Your task to perform on an android device: see creations saved in the google photos Image 0: 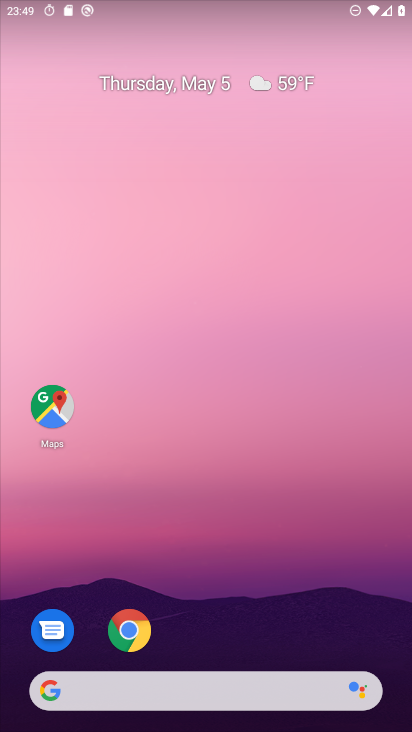
Step 0: drag from (333, 587) to (305, 120)
Your task to perform on an android device: see creations saved in the google photos Image 1: 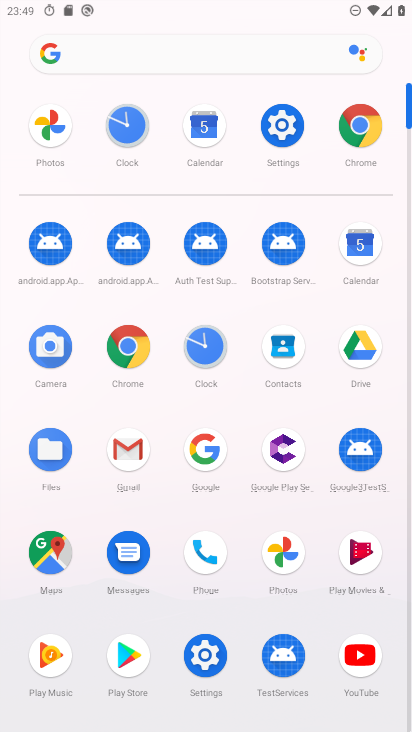
Step 1: click (275, 560)
Your task to perform on an android device: see creations saved in the google photos Image 2: 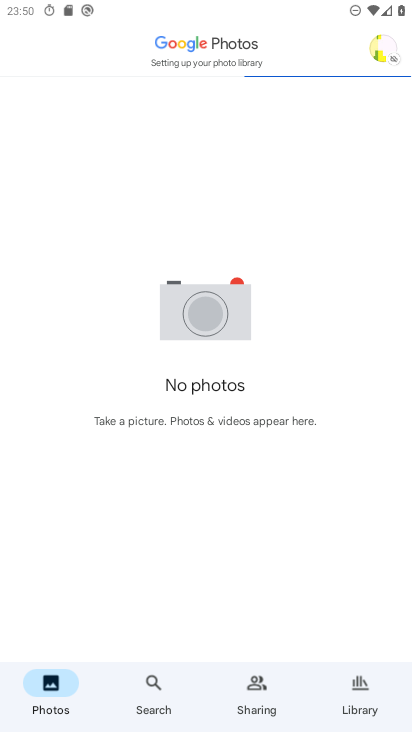
Step 2: click (257, 698)
Your task to perform on an android device: see creations saved in the google photos Image 3: 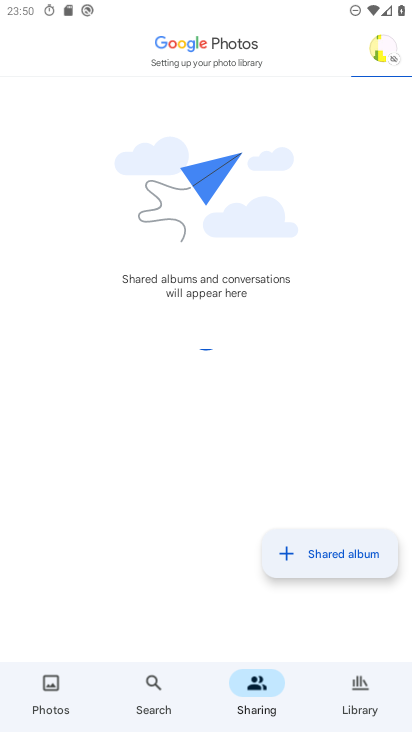
Step 3: click (396, 686)
Your task to perform on an android device: see creations saved in the google photos Image 4: 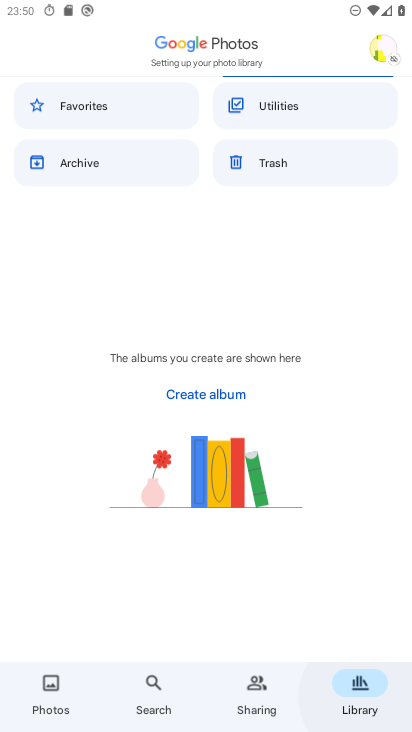
Step 4: click (370, 701)
Your task to perform on an android device: see creations saved in the google photos Image 5: 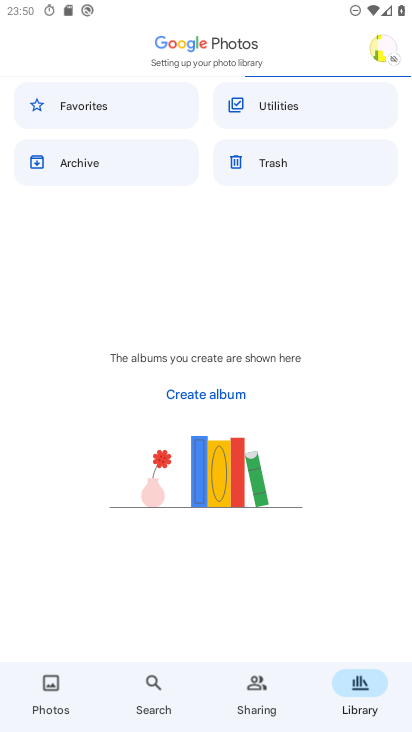
Step 5: click (173, 691)
Your task to perform on an android device: see creations saved in the google photos Image 6: 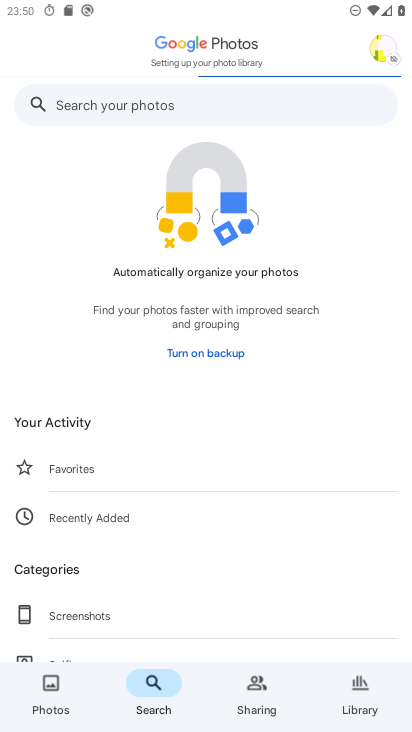
Step 6: click (60, 689)
Your task to perform on an android device: see creations saved in the google photos Image 7: 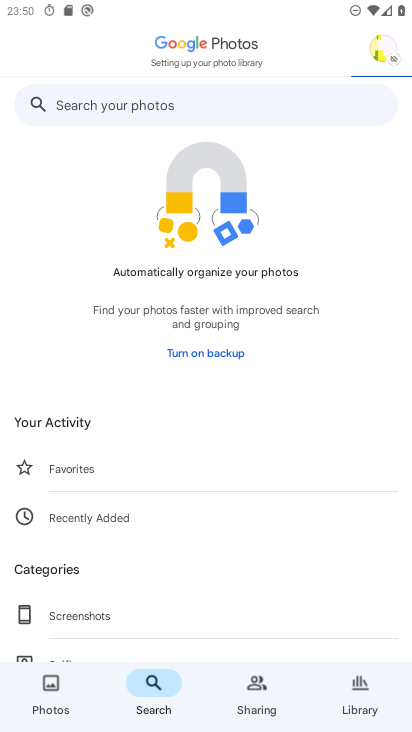
Step 7: click (60, 689)
Your task to perform on an android device: see creations saved in the google photos Image 8: 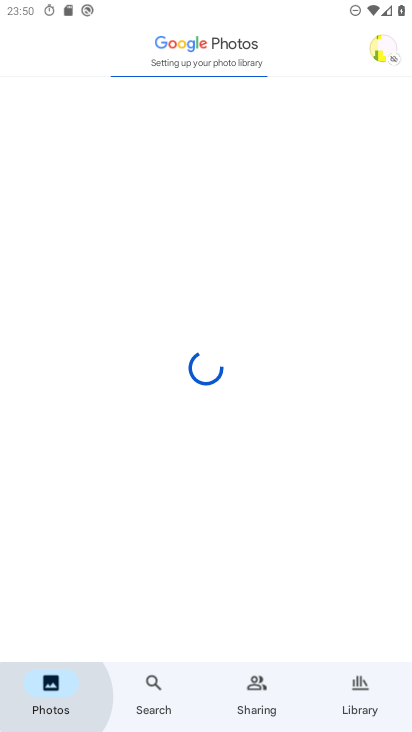
Step 8: click (60, 689)
Your task to perform on an android device: see creations saved in the google photos Image 9: 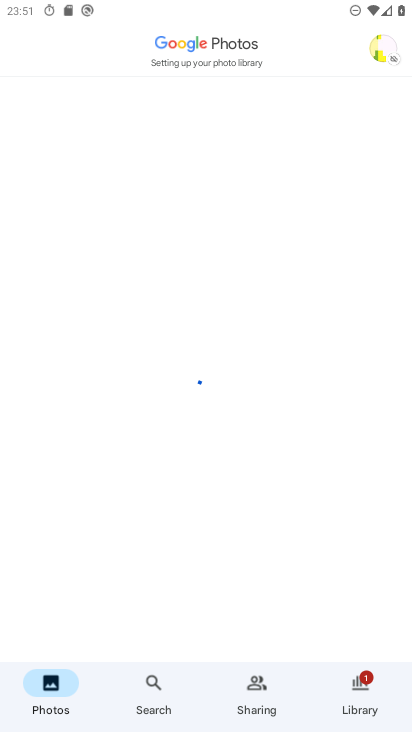
Step 9: task complete